Your task to perform on an android device: turn on sleep mode Image 0: 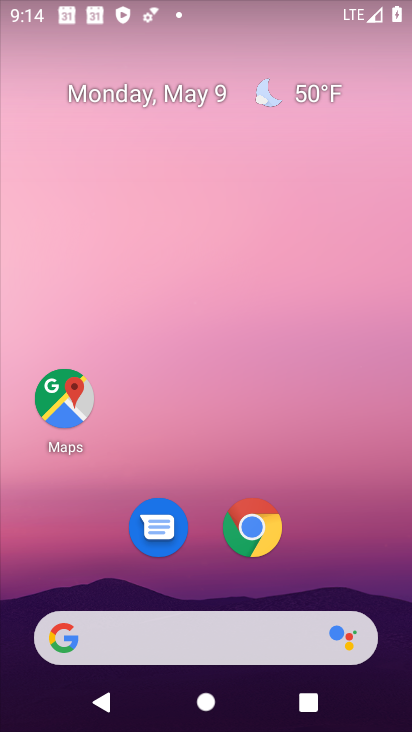
Step 0: drag from (190, 582) to (273, 126)
Your task to perform on an android device: turn on sleep mode Image 1: 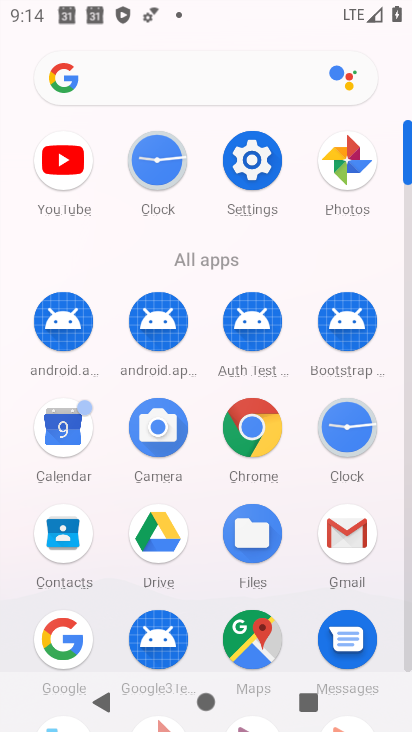
Step 1: click (267, 180)
Your task to perform on an android device: turn on sleep mode Image 2: 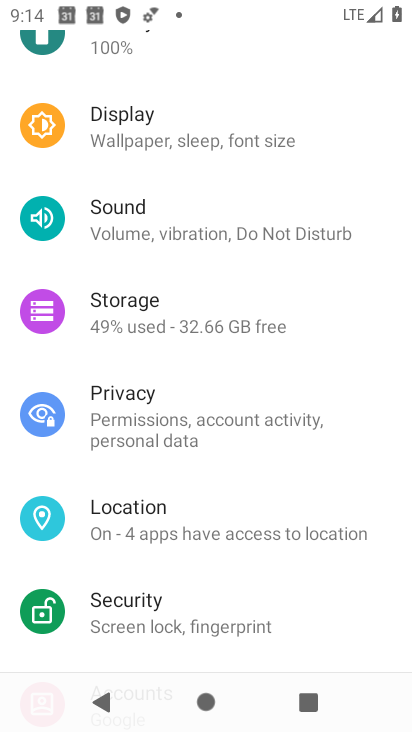
Step 2: drag from (198, 102) to (204, 401)
Your task to perform on an android device: turn on sleep mode Image 3: 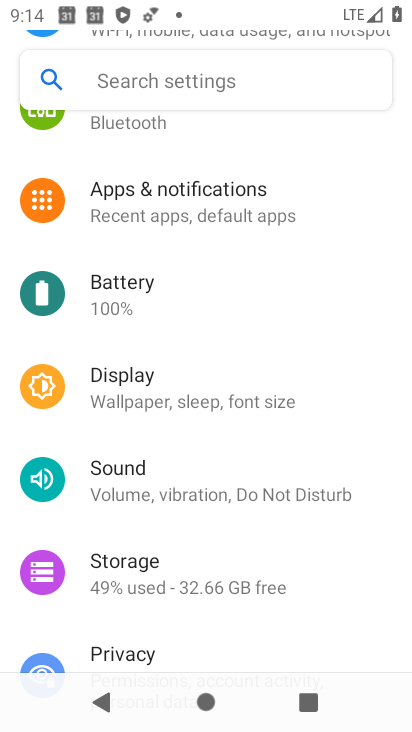
Step 3: click (240, 65)
Your task to perform on an android device: turn on sleep mode Image 4: 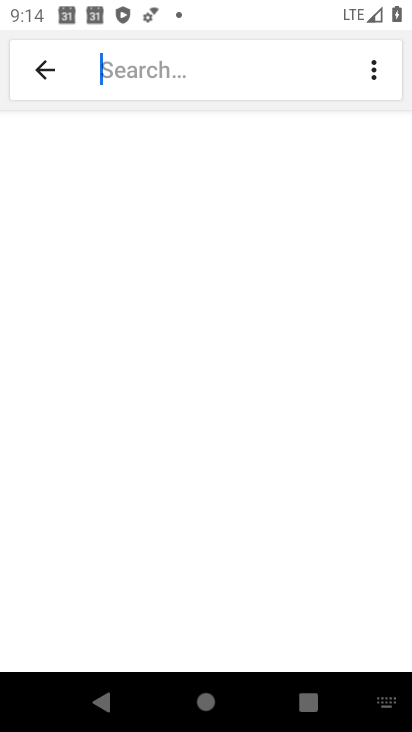
Step 4: type "sleep mode"
Your task to perform on an android device: turn on sleep mode Image 5: 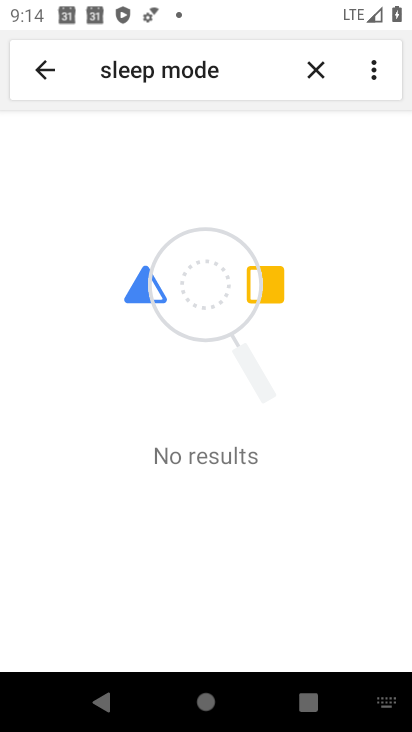
Step 5: task complete